Your task to perform on an android device: open app "LiveIn - Share Your Moment" (install if not already installed) Image 0: 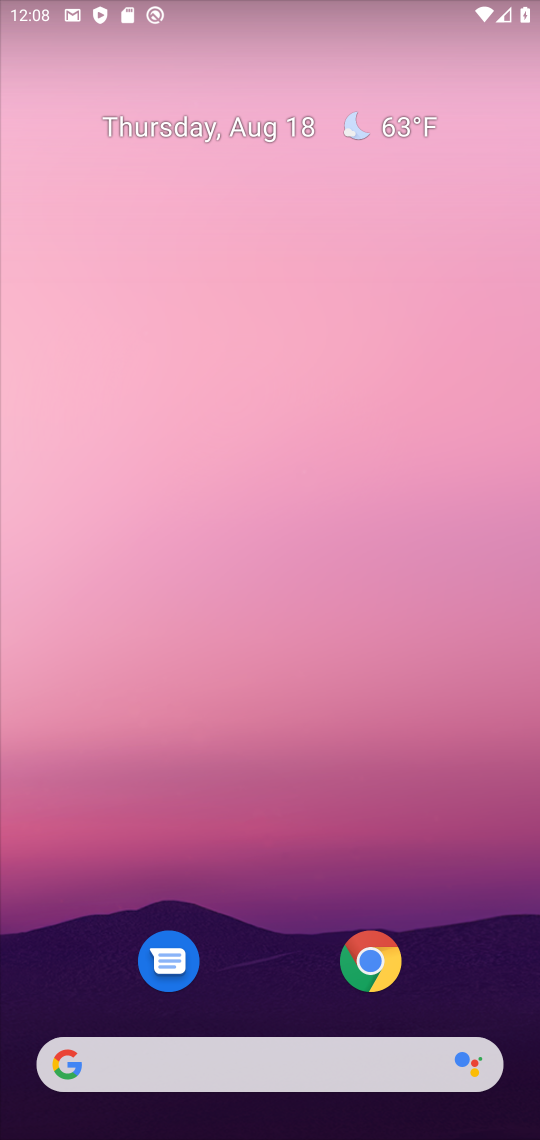
Step 0: click (431, 70)
Your task to perform on an android device: open app "LiveIn - Share Your Moment" (install if not already installed) Image 1: 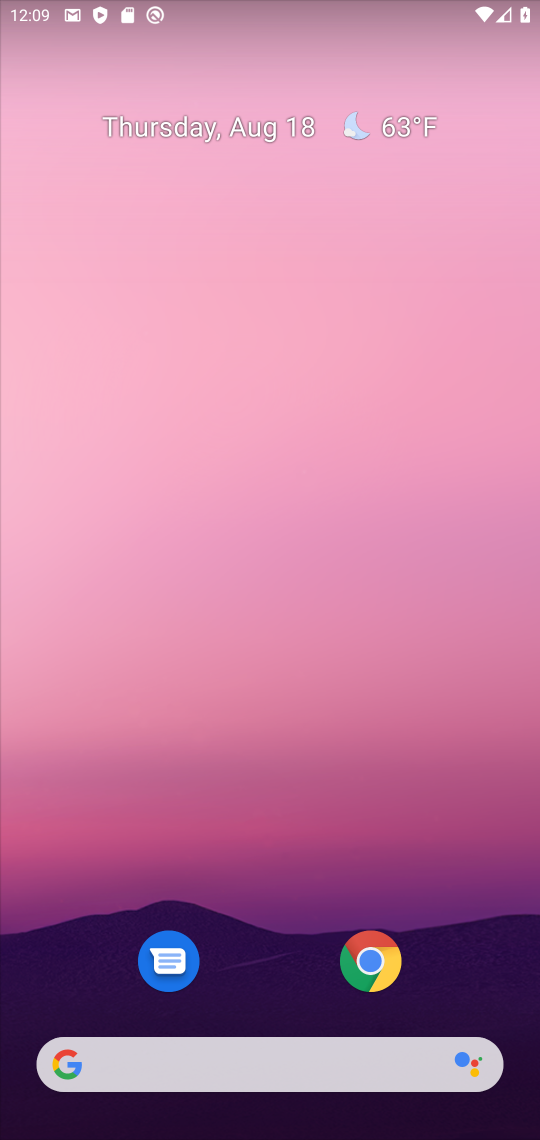
Step 1: drag from (264, 925) to (317, 339)
Your task to perform on an android device: open app "LiveIn - Share Your Moment" (install if not already installed) Image 2: 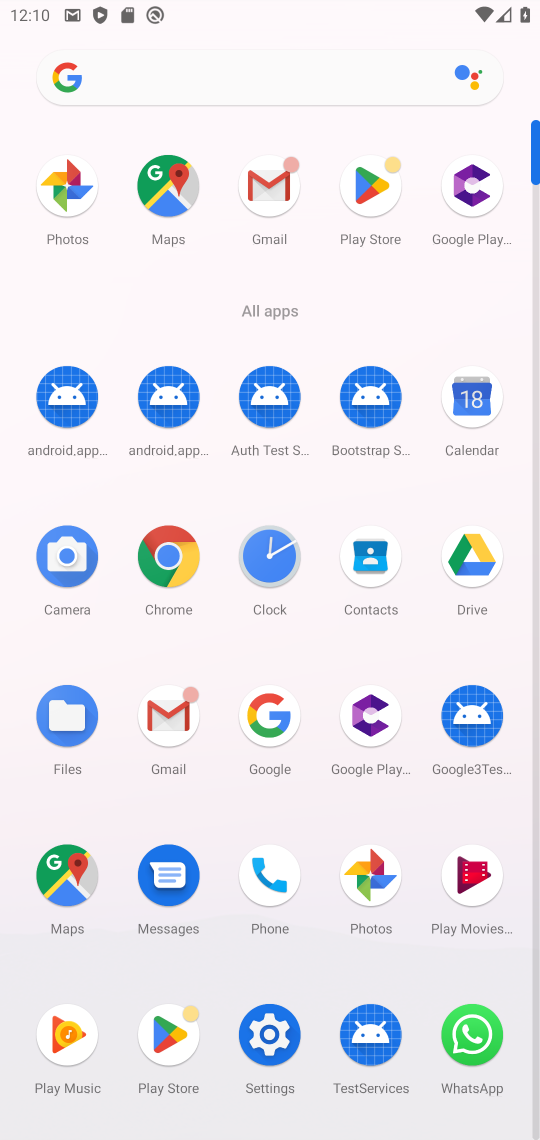
Step 2: click (391, 180)
Your task to perform on an android device: open app "LiveIn - Share Your Moment" (install if not already installed) Image 3: 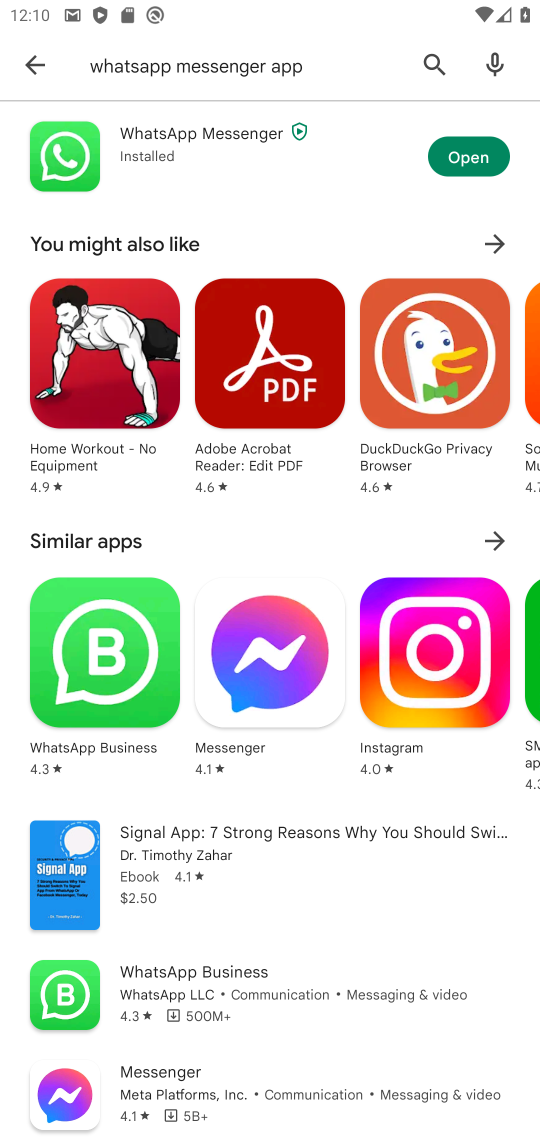
Step 3: click (418, 66)
Your task to perform on an android device: open app "LiveIn - Share Your Moment" (install if not already installed) Image 4: 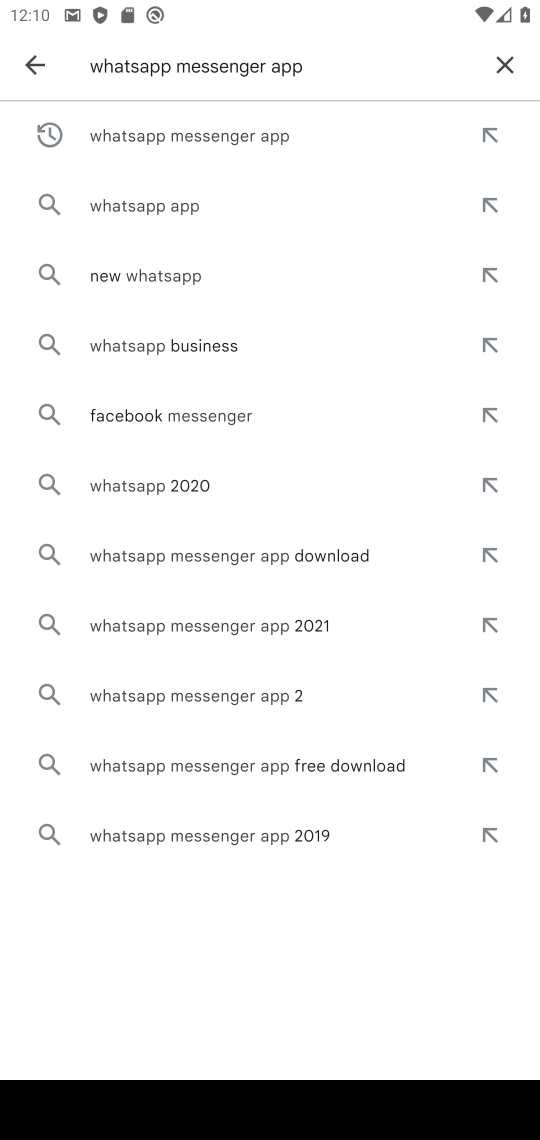
Step 4: click (517, 67)
Your task to perform on an android device: open app "LiveIn - Share Your Moment" (install if not already installed) Image 5: 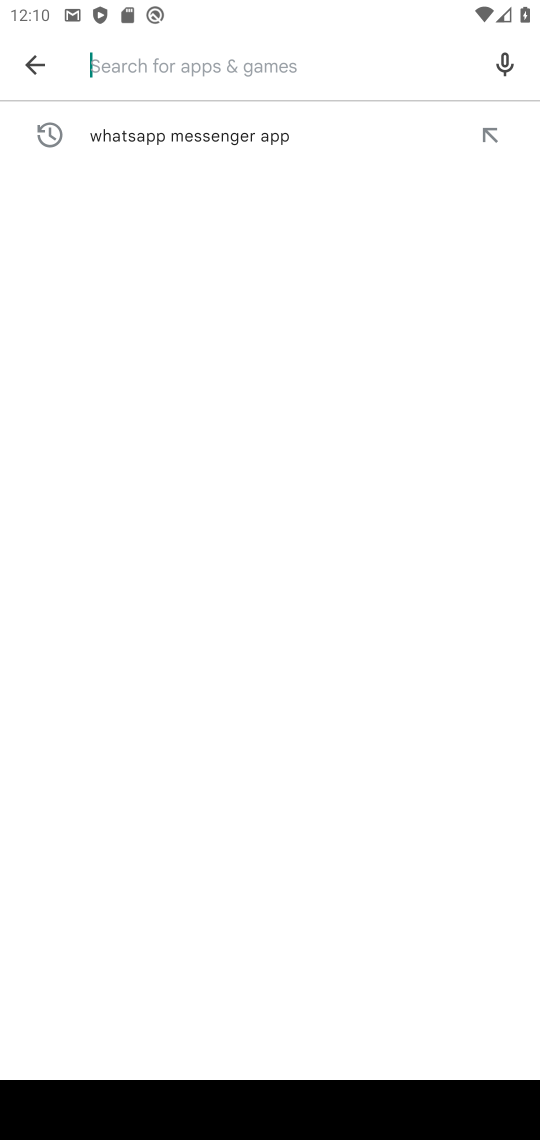
Step 5: click (221, 62)
Your task to perform on an android device: open app "LiveIn - Share Your Moment" (install if not already installed) Image 6: 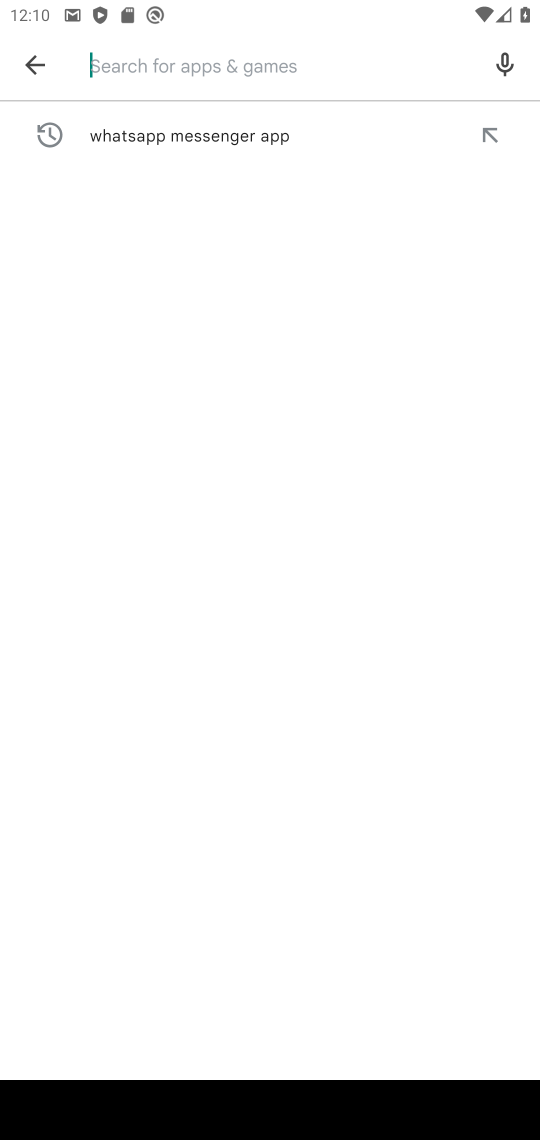
Step 6: type "LiveIn - Share Your Moment "
Your task to perform on an android device: open app "LiveIn - Share Your Moment" (install if not already installed) Image 7: 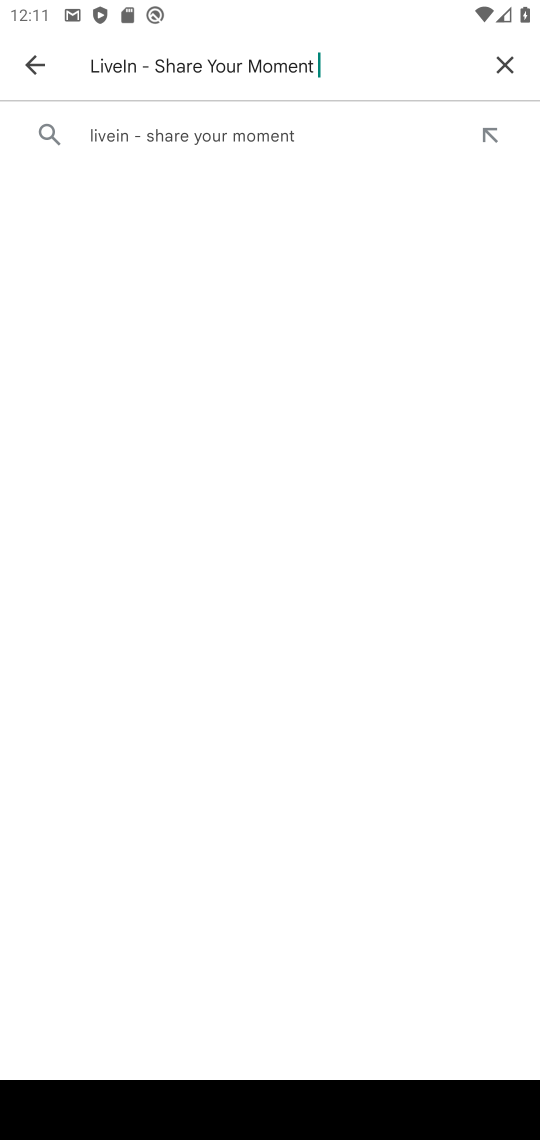
Step 7: click (218, 128)
Your task to perform on an android device: open app "LiveIn - Share Your Moment" (install if not already installed) Image 8: 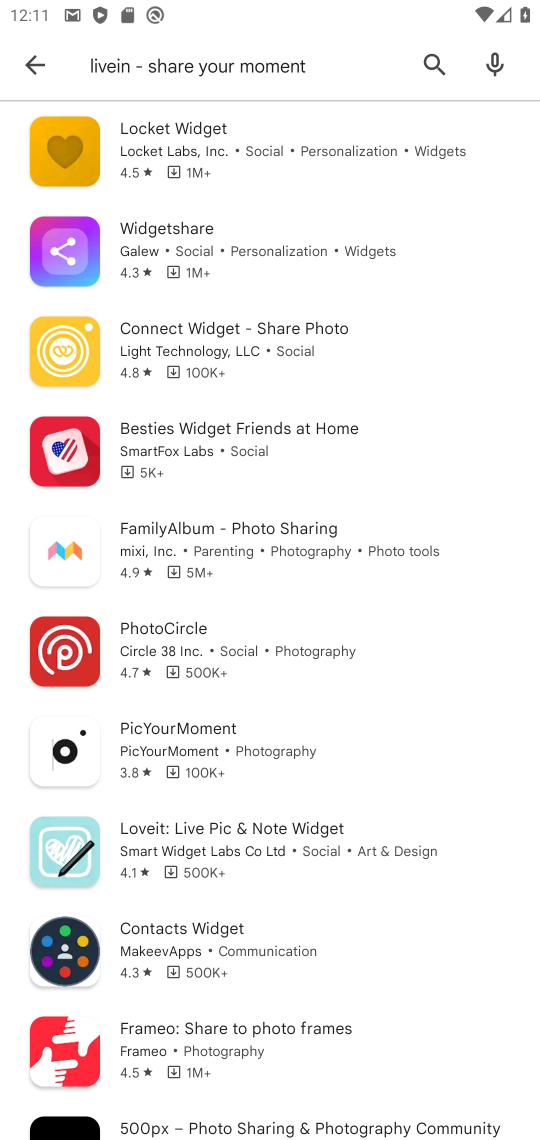
Step 8: click (266, 143)
Your task to perform on an android device: open app "LiveIn - Share Your Moment" (install if not already installed) Image 9: 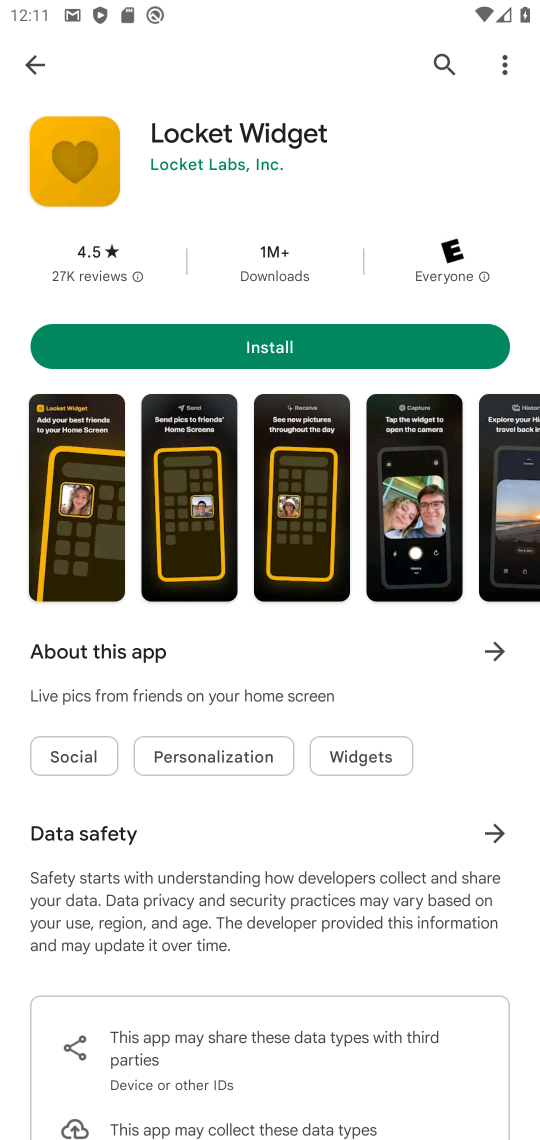
Step 9: click (52, 58)
Your task to perform on an android device: open app "LiveIn - Share Your Moment" (install if not already installed) Image 10: 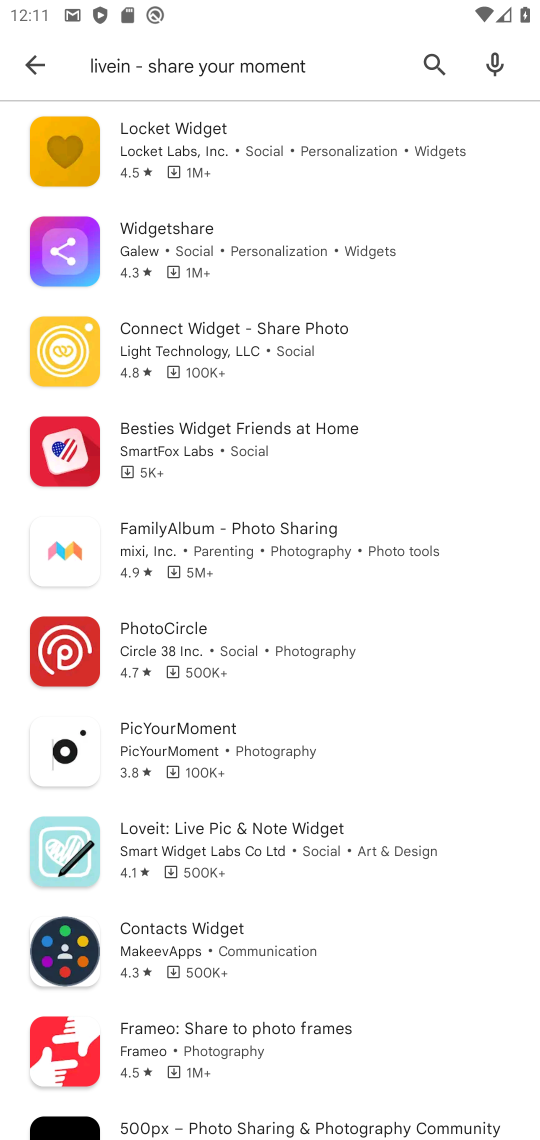
Step 10: task complete